Your task to perform on an android device: check google app version Image 0: 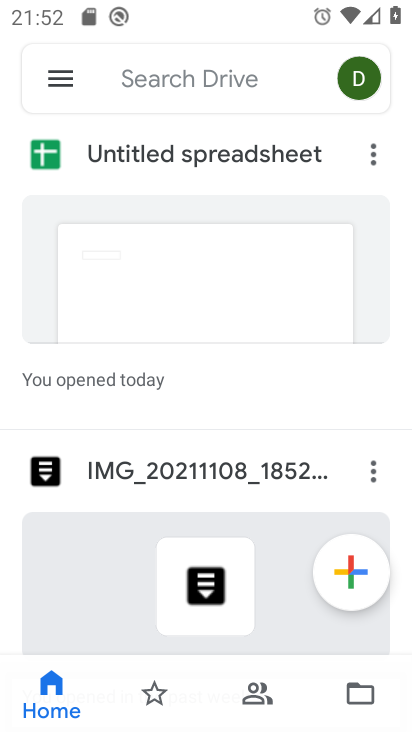
Step 0: press home button
Your task to perform on an android device: check google app version Image 1: 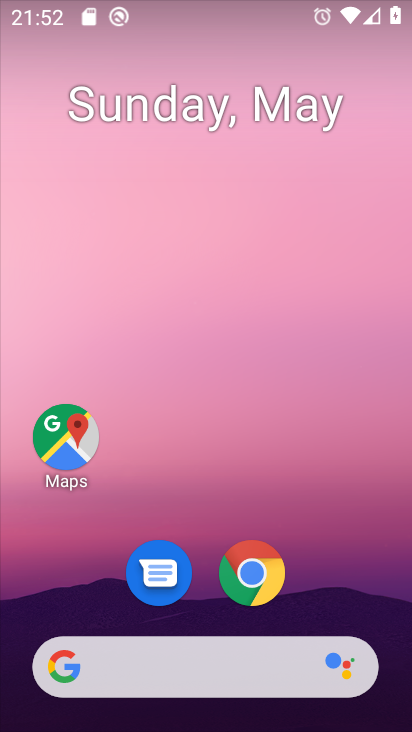
Step 1: click (188, 674)
Your task to perform on an android device: check google app version Image 2: 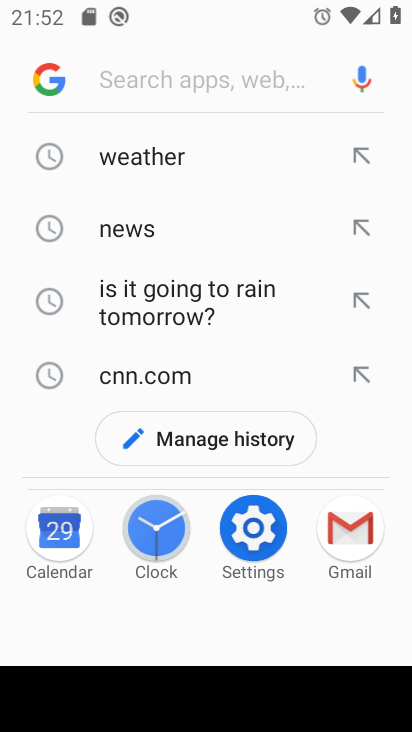
Step 2: click (47, 79)
Your task to perform on an android device: check google app version Image 3: 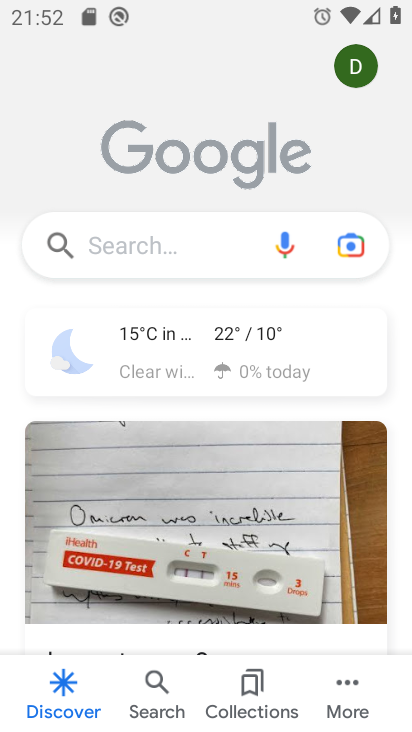
Step 3: click (342, 677)
Your task to perform on an android device: check google app version Image 4: 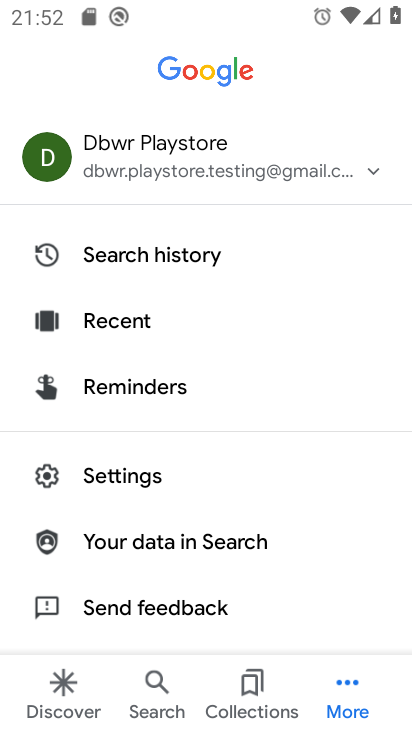
Step 4: click (167, 477)
Your task to perform on an android device: check google app version Image 5: 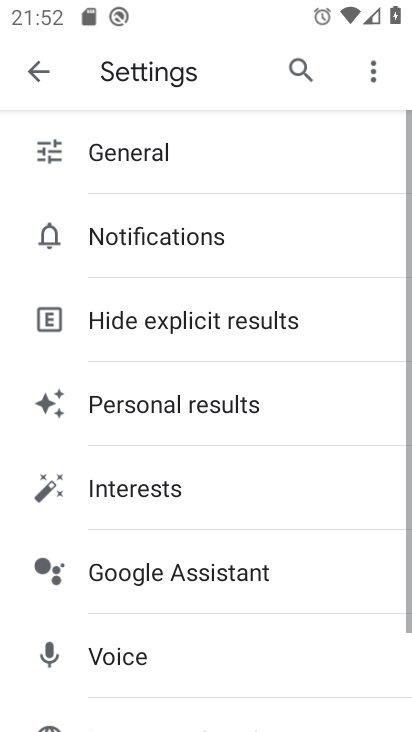
Step 5: drag from (207, 575) to (245, 281)
Your task to perform on an android device: check google app version Image 6: 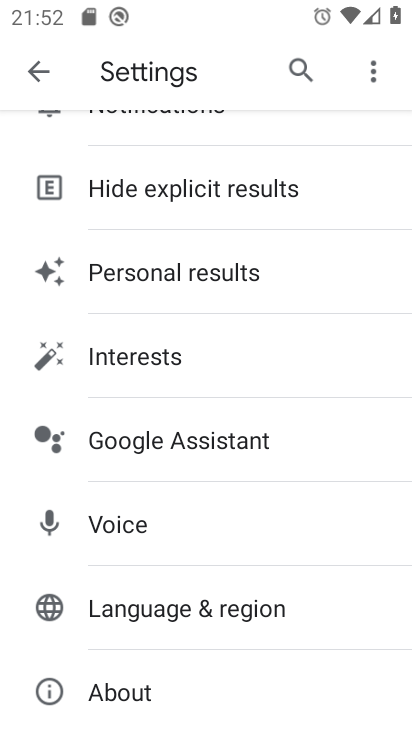
Step 6: click (131, 685)
Your task to perform on an android device: check google app version Image 7: 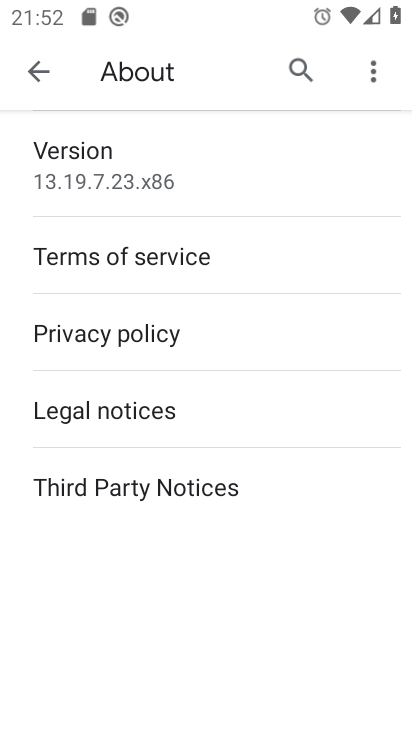
Step 7: task complete